Your task to perform on an android device: Find coffee shops on Maps Image 0: 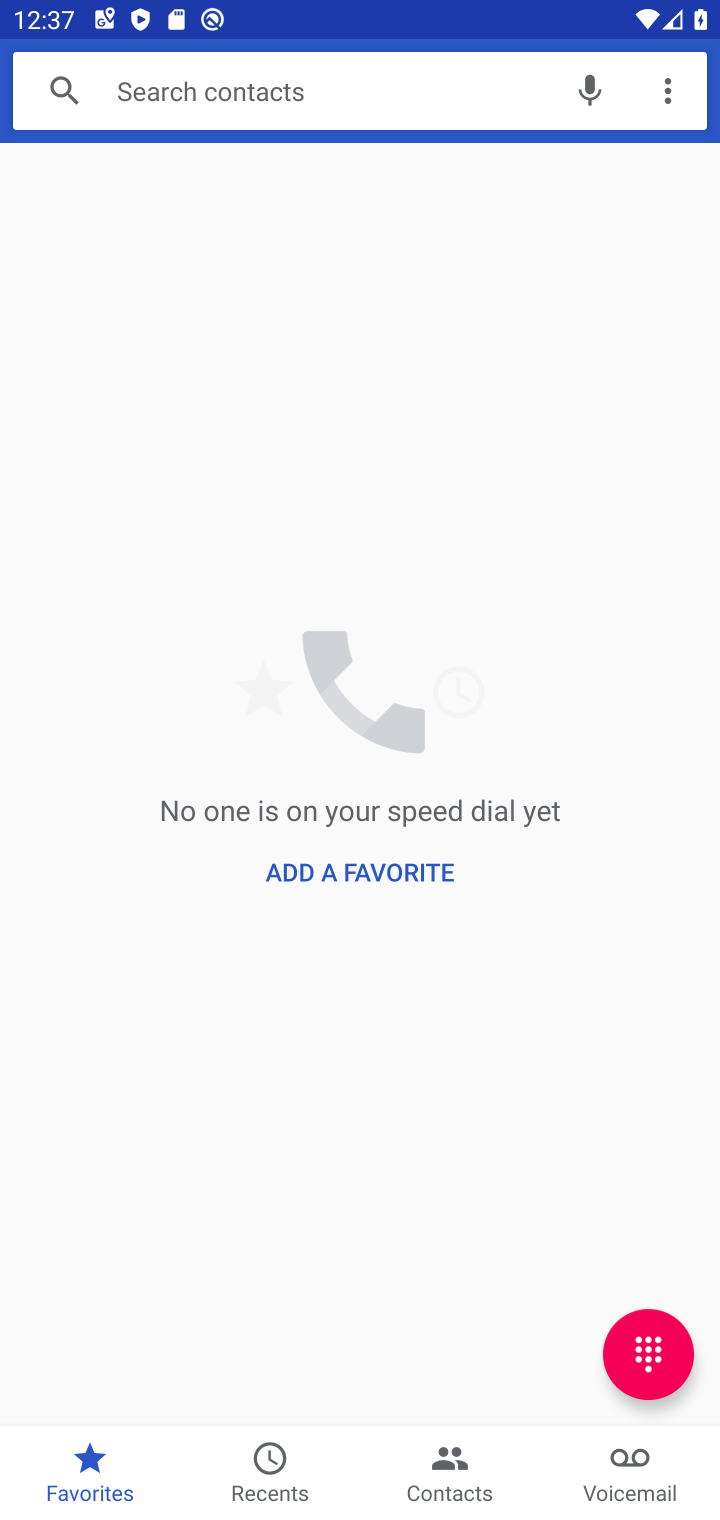
Step 0: press back button
Your task to perform on an android device: Find coffee shops on Maps Image 1: 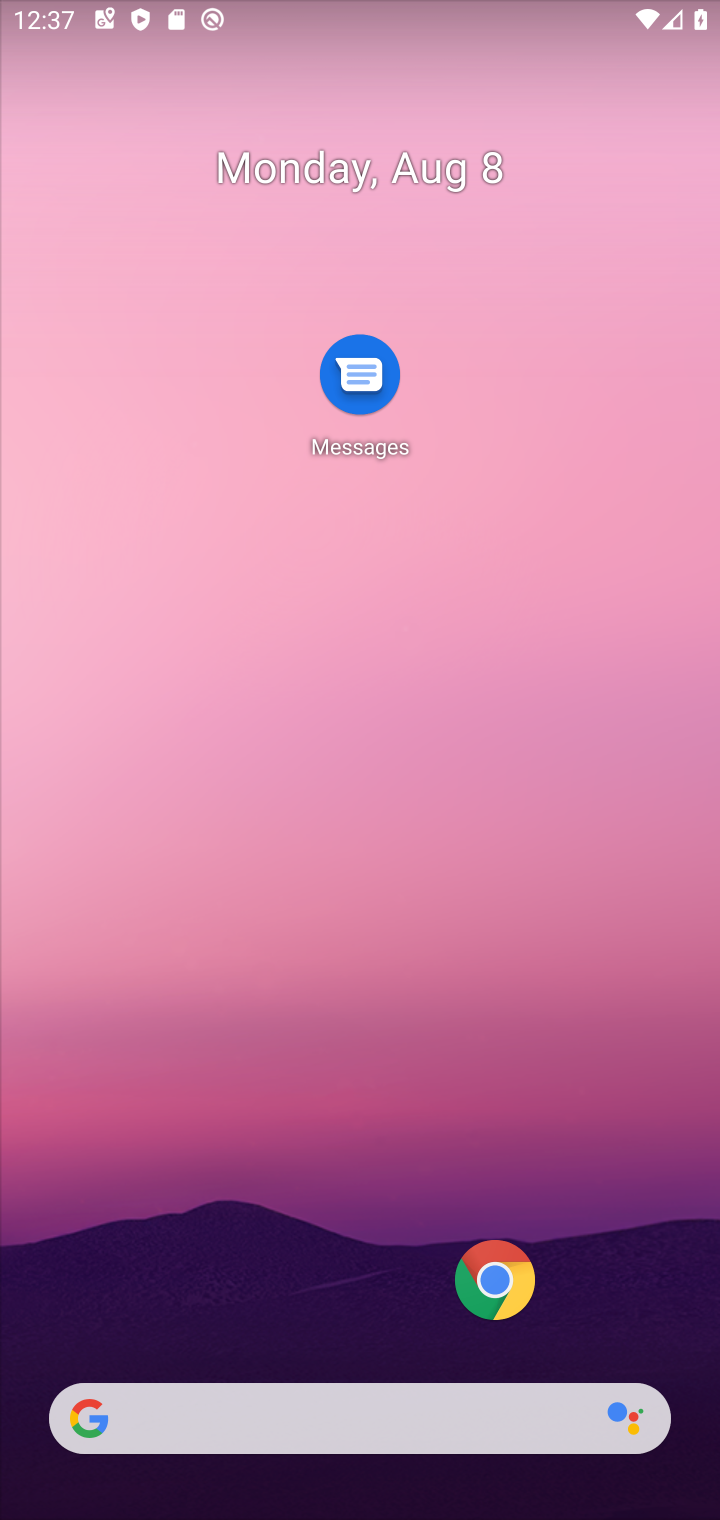
Step 1: drag from (199, 1353) to (425, 188)
Your task to perform on an android device: Find coffee shops on Maps Image 2: 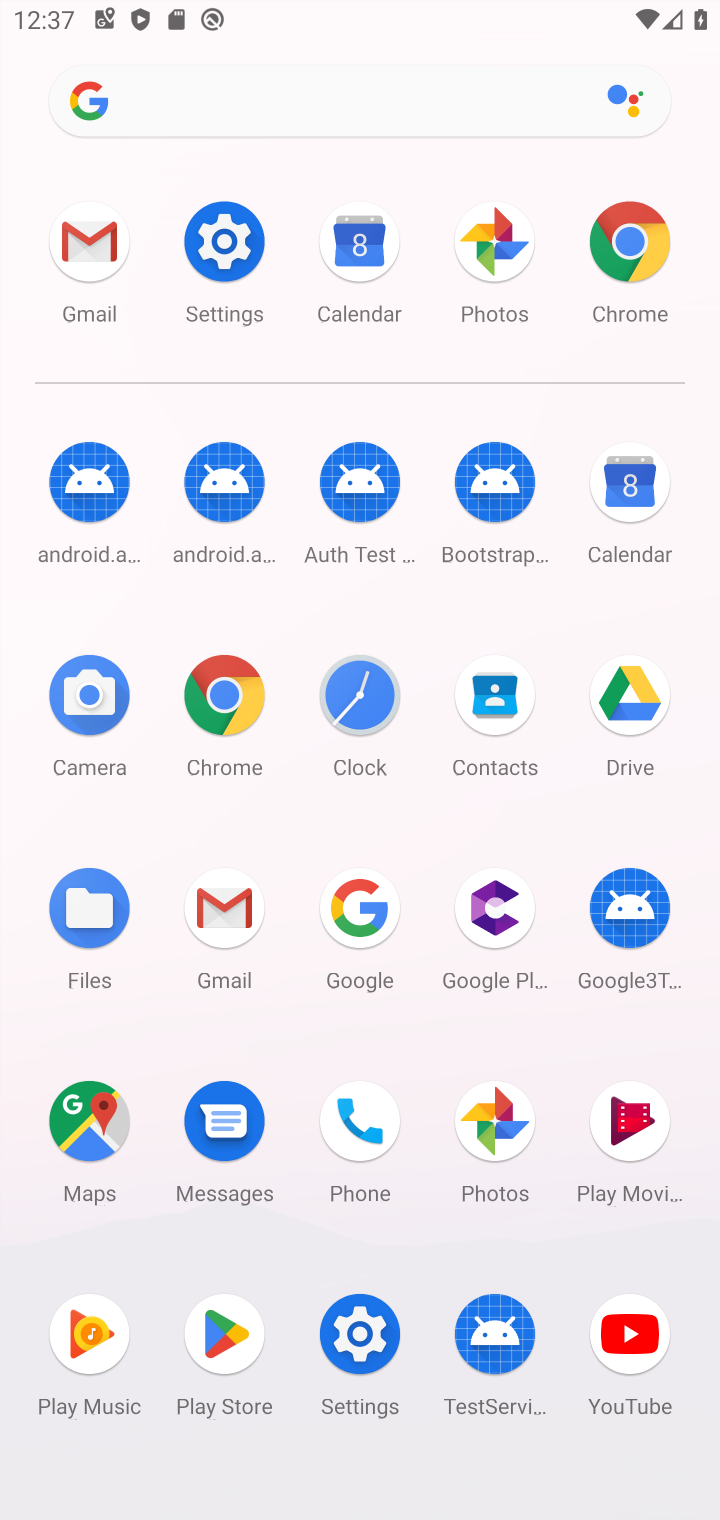
Step 2: drag from (281, 1228) to (381, 86)
Your task to perform on an android device: Find coffee shops on Maps Image 3: 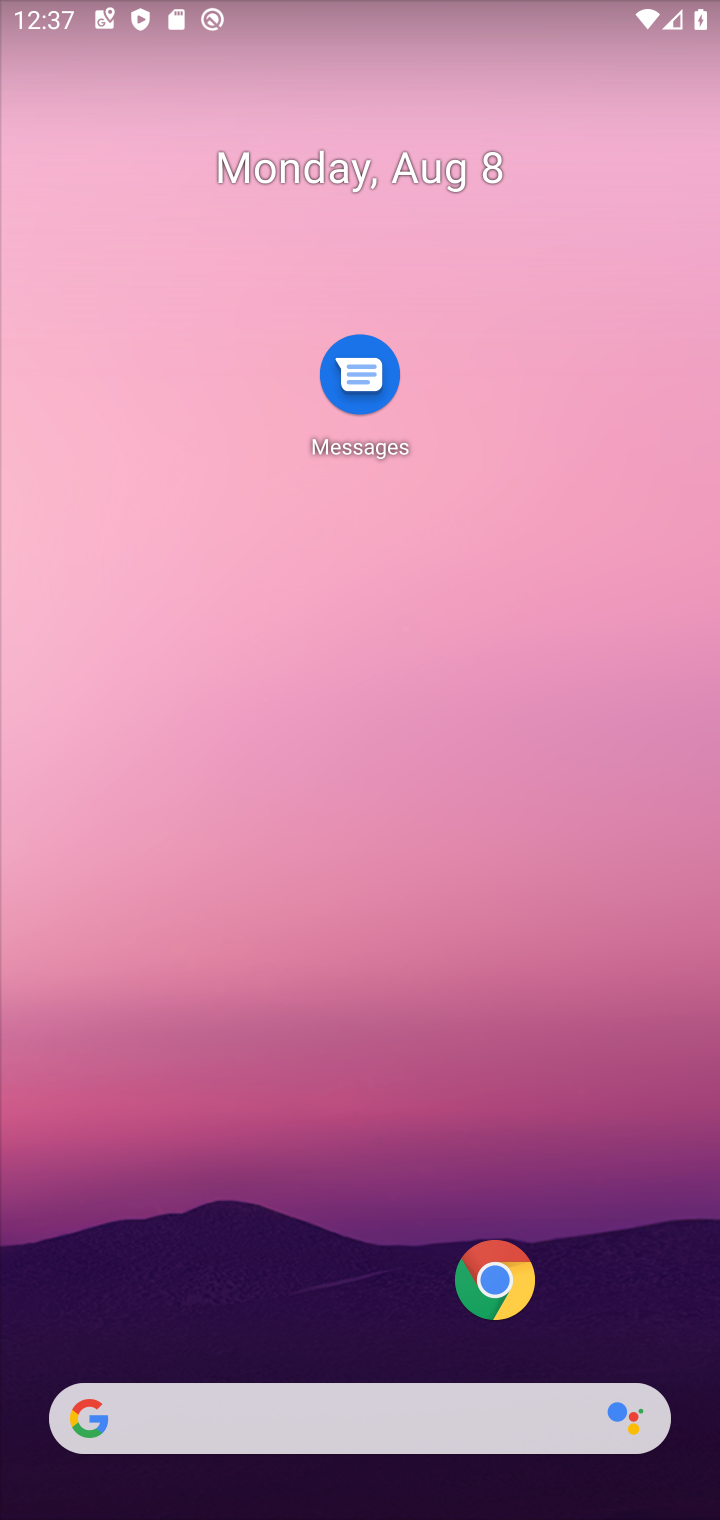
Step 3: drag from (280, 1258) to (573, 2)
Your task to perform on an android device: Find coffee shops on Maps Image 4: 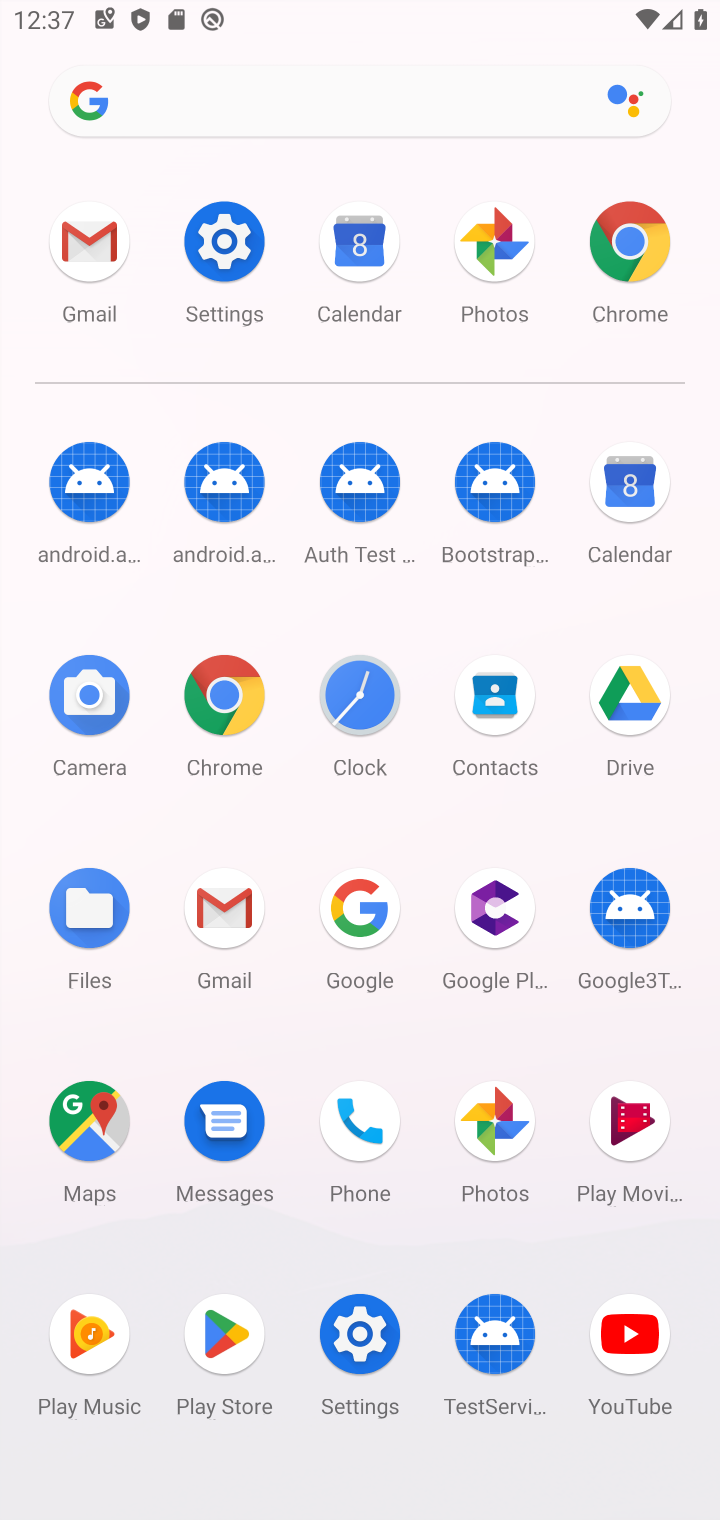
Step 4: click (98, 1132)
Your task to perform on an android device: Find coffee shops on Maps Image 5: 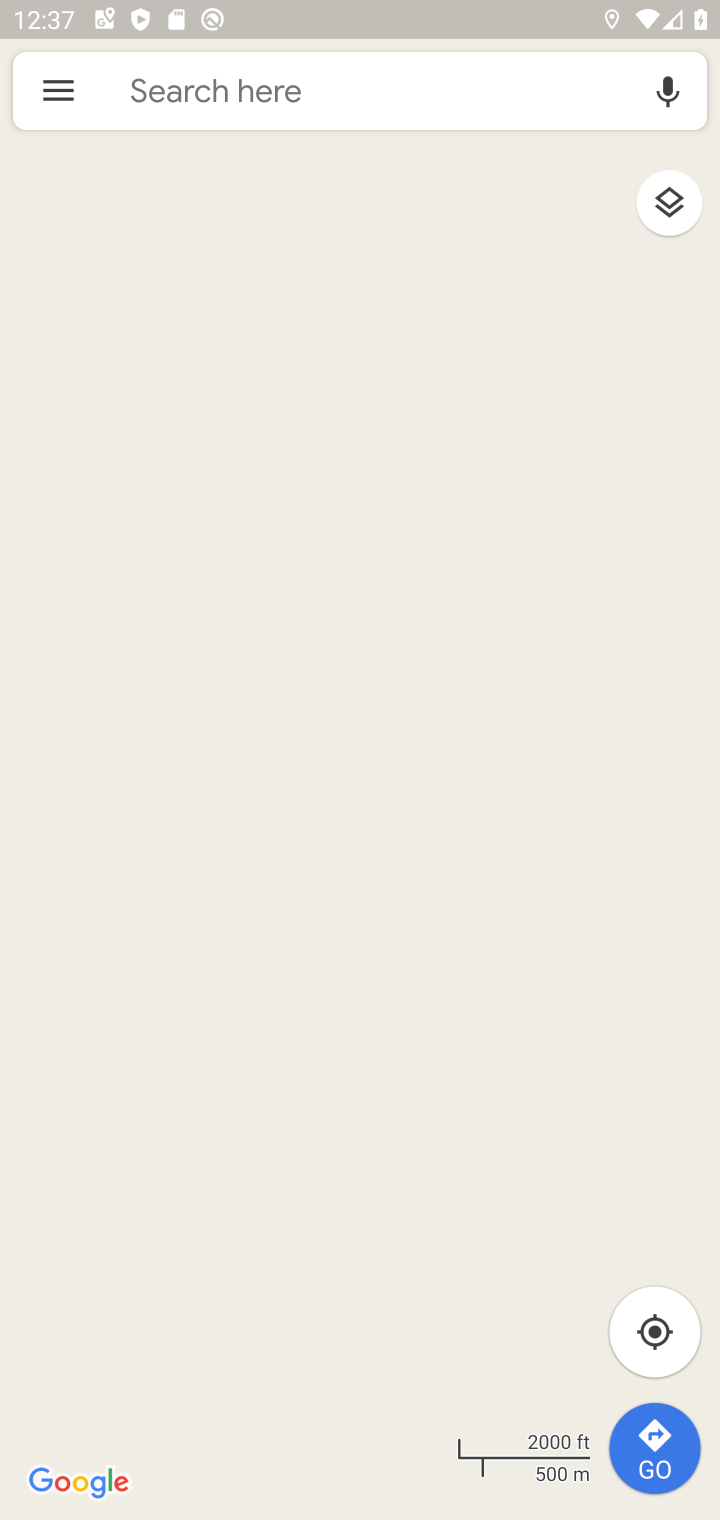
Step 5: click (337, 84)
Your task to perform on an android device: Find coffee shops on Maps Image 6: 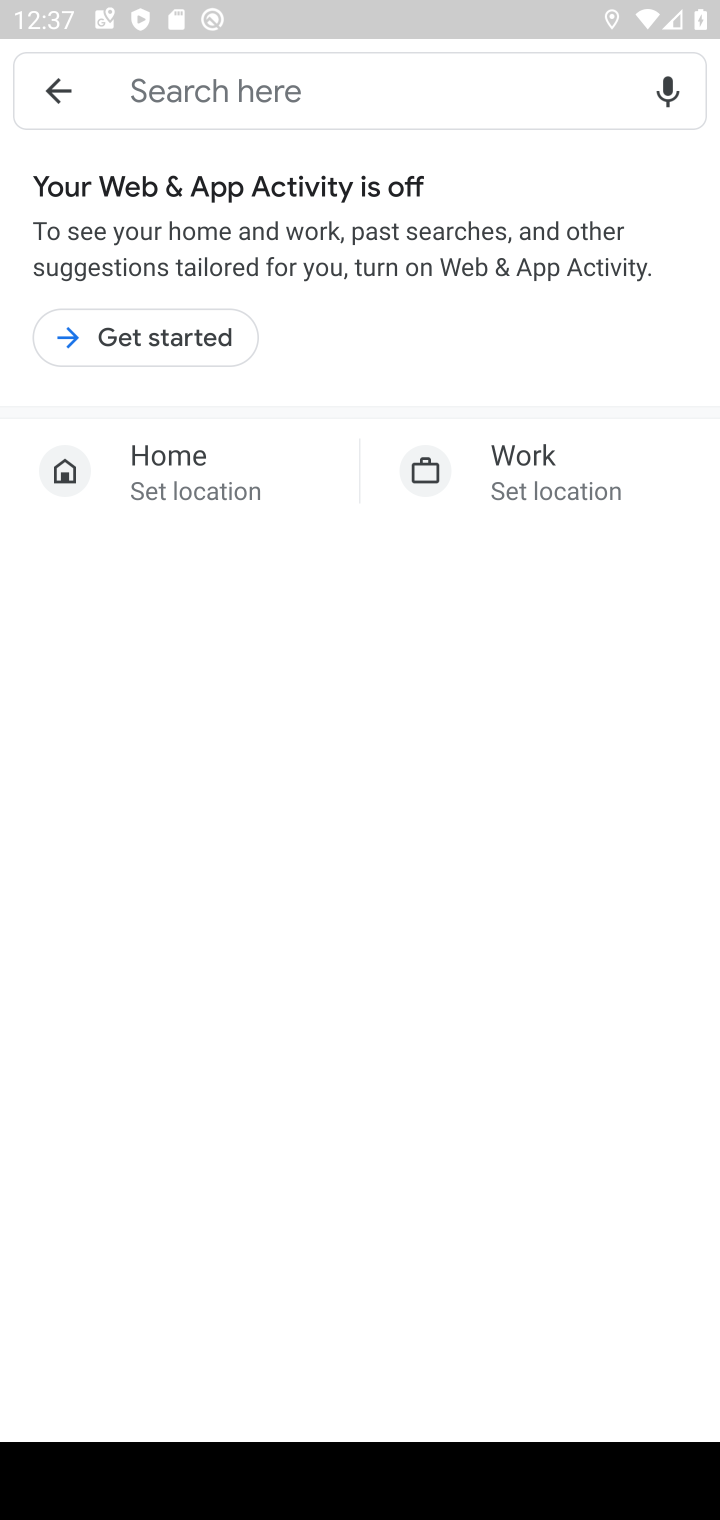
Step 6: type "coffee shops"
Your task to perform on an android device: Find coffee shops on Maps Image 7: 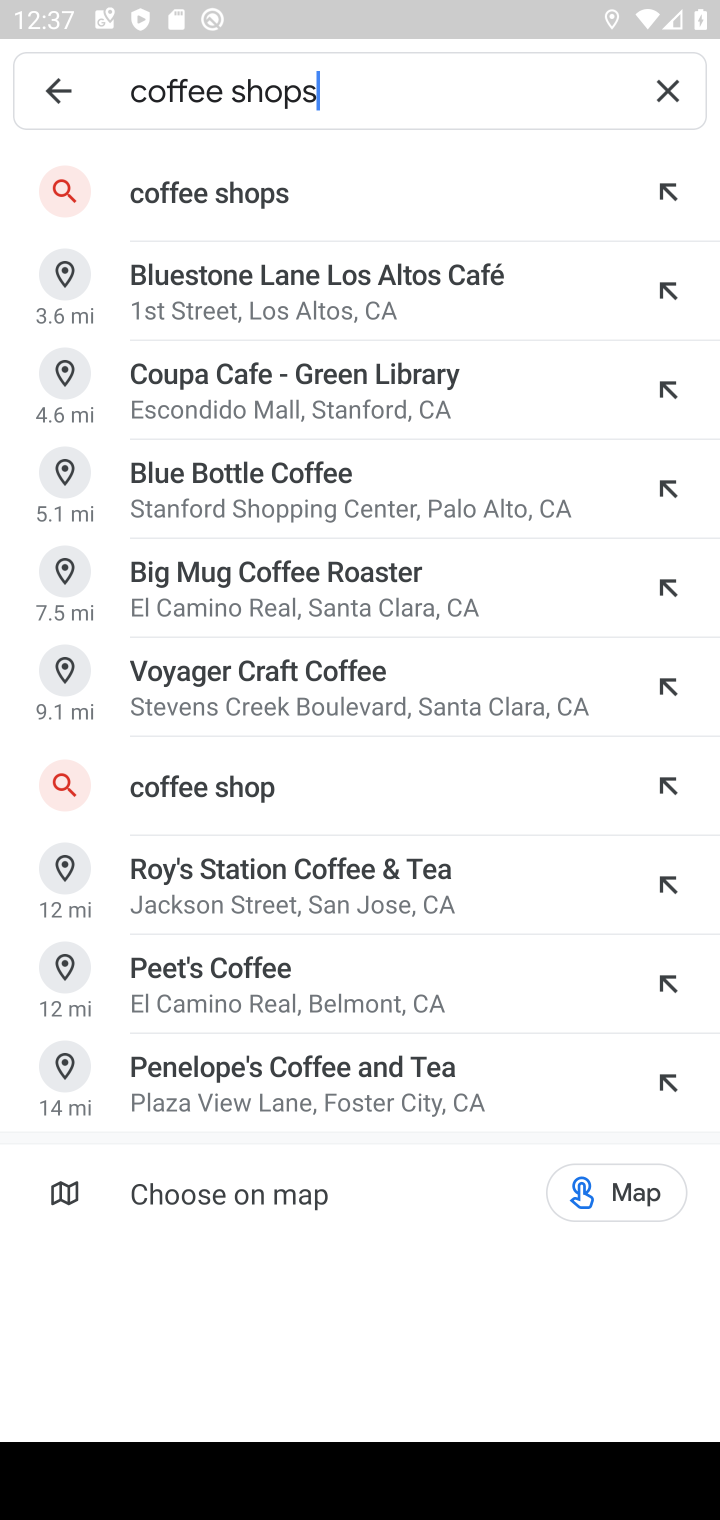
Step 7: click (287, 189)
Your task to perform on an android device: Find coffee shops on Maps Image 8: 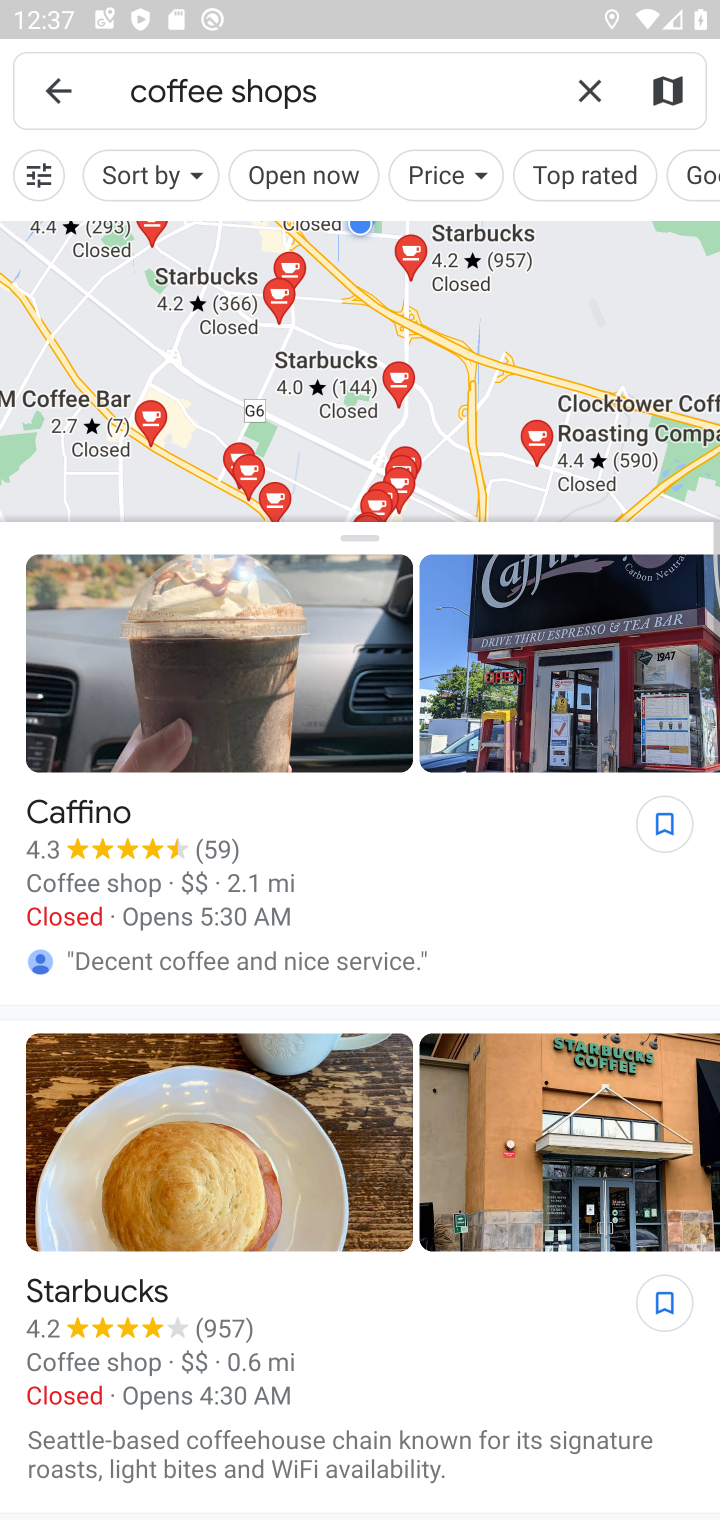
Step 8: task complete